Your task to perform on an android device: Open Google Chrome and open the bookmarks view Image 0: 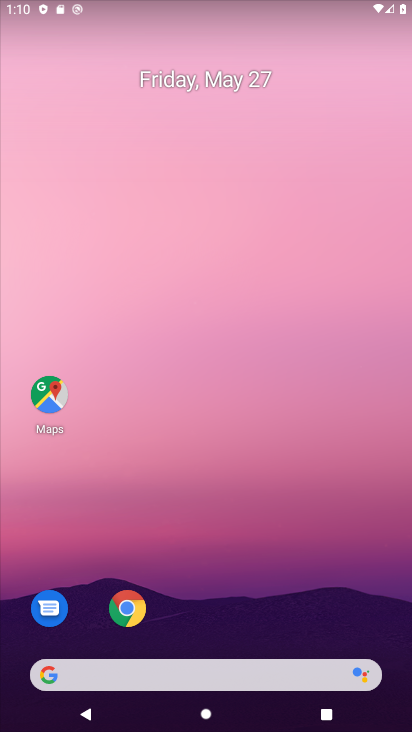
Step 0: press home button
Your task to perform on an android device: Open Google Chrome and open the bookmarks view Image 1: 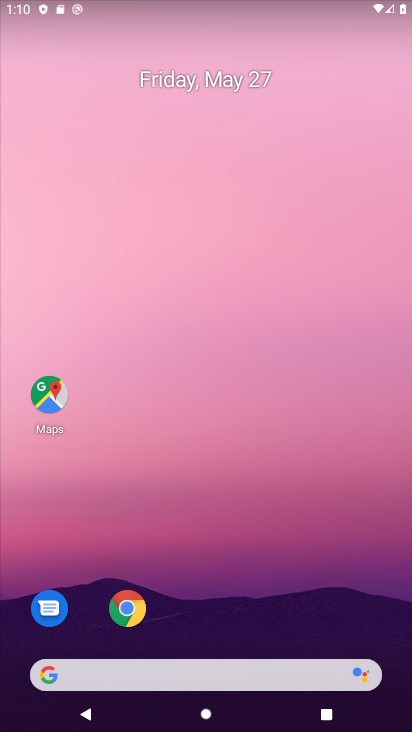
Step 1: click (131, 613)
Your task to perform on an android device: Open Google Chrome and open the bookmarks view Image 2: 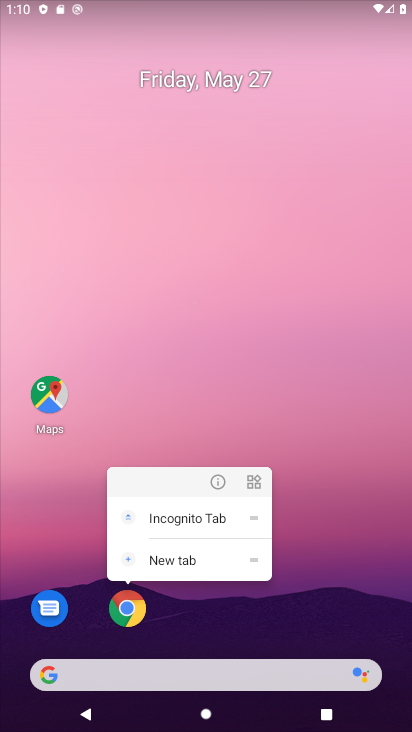
Step 2: click (131, 606)
Your task to perform on an android device: Open Google Chrome and open the bookmarks view Image 3: 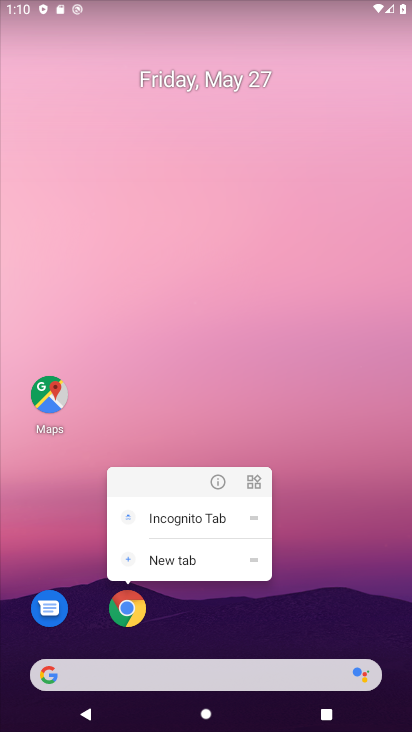
Step 3: click (131, 615)
Your task to perform on an android device: Open Google Chrome and open the bookmarks view Image 4: 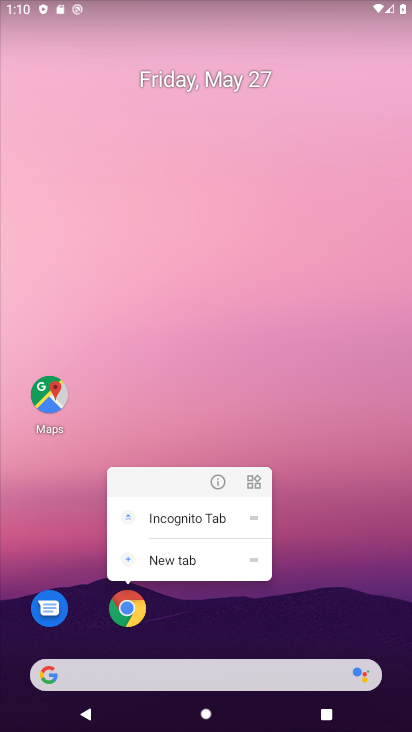
Step 4: click (132, 608)
Your task to perform on an android device: Open Google Chrome and open the bookmarks view Image 5: 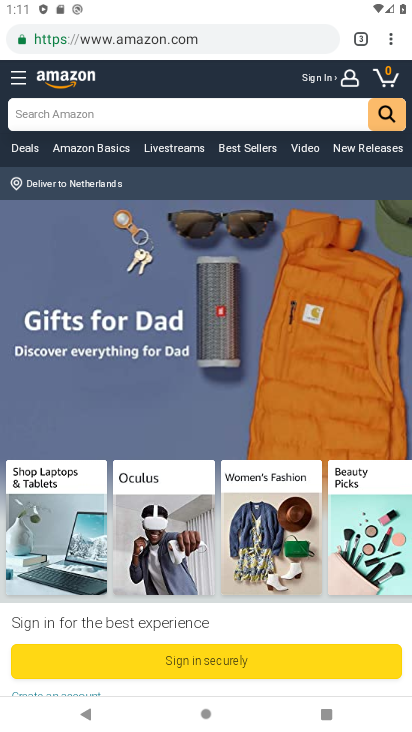
Step 5: task complete